Your task to perform on an android device: Go to Google Image 0: 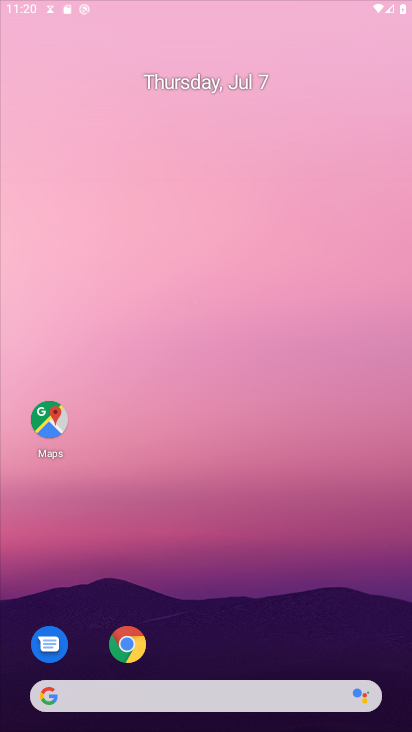
Step 0: press home button
Your task to perform on an android device: Go to Google Image 1: 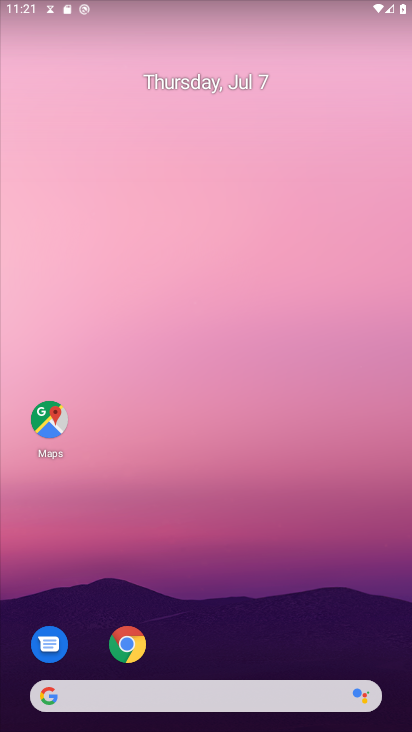
Step 1: drag from (259, 541) to (245, 13)
Your task to perform on an android device: Go to Google Image 2: 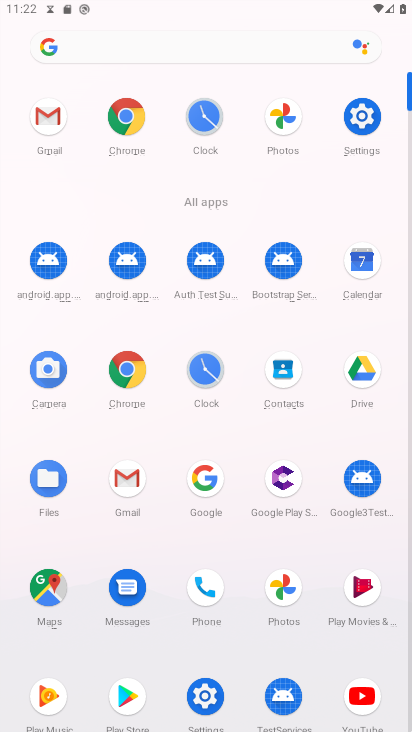
Step 2: click (209, 477)
Your task to perform on an android device: Go to Google Image 3: 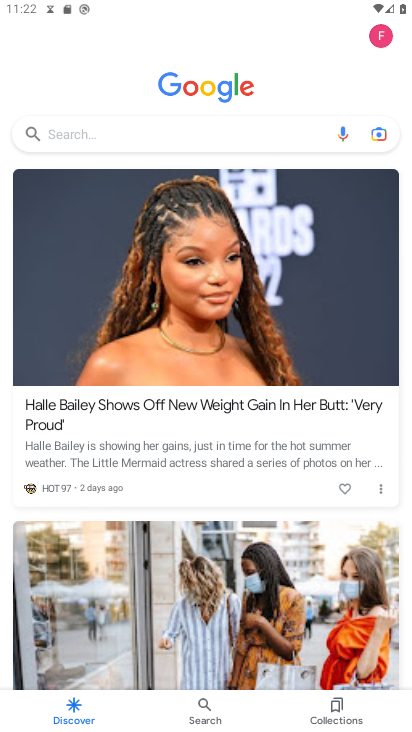
Step 3: task complete